Your task to perform on an android device: When is my next appointment? Image 0: 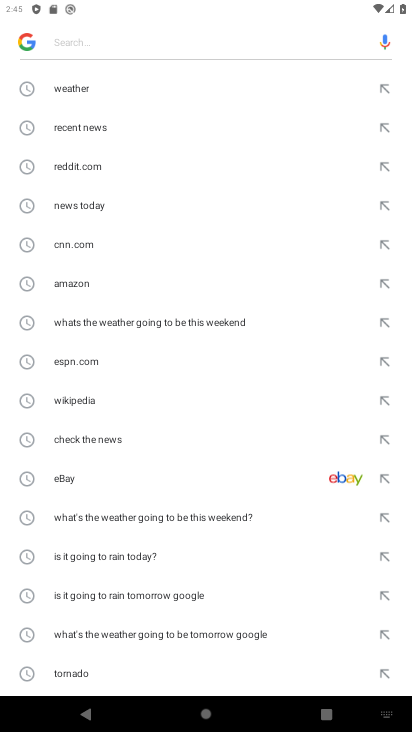
Step 0: press home button
Your task to perform on an android device: When is my next appointment? Image 1: 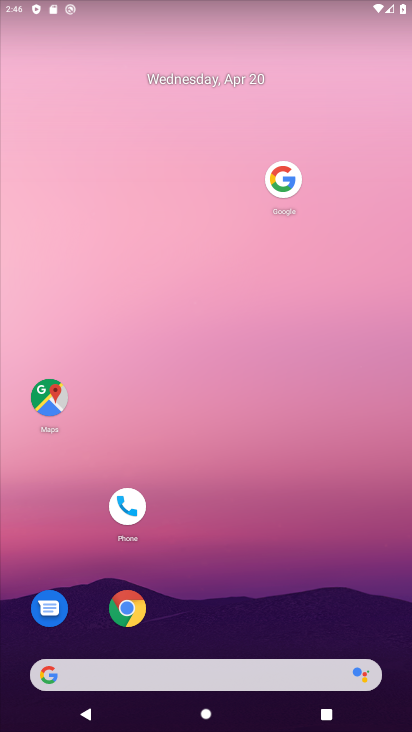
Step 1: drag from (308, 619) to (188, 193)
Your task to perform on an android device: When is my next appointment? Image 2: 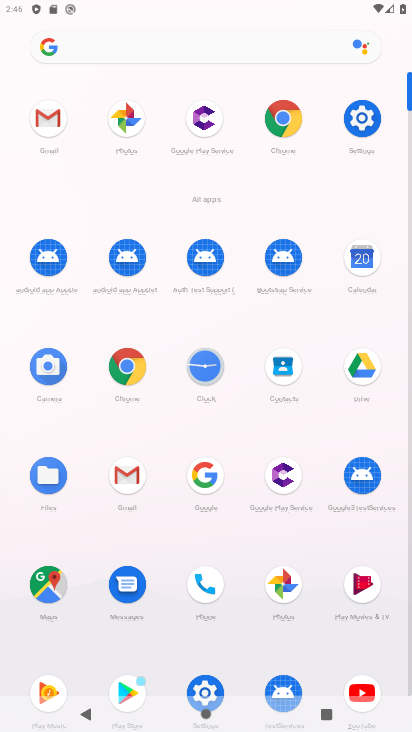
Step 2: click (363, 264)
Your task to perform on an android device: When is my next appointment? Image 3: 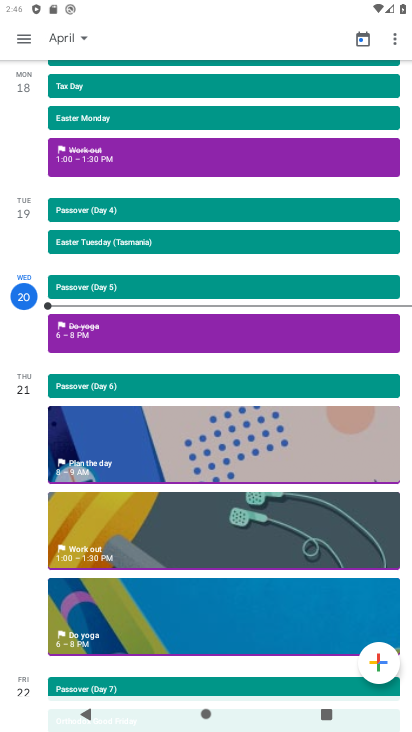
Step 3: task complete